Your task to perform on an android device: turn off translation in the chrome app Image 0: 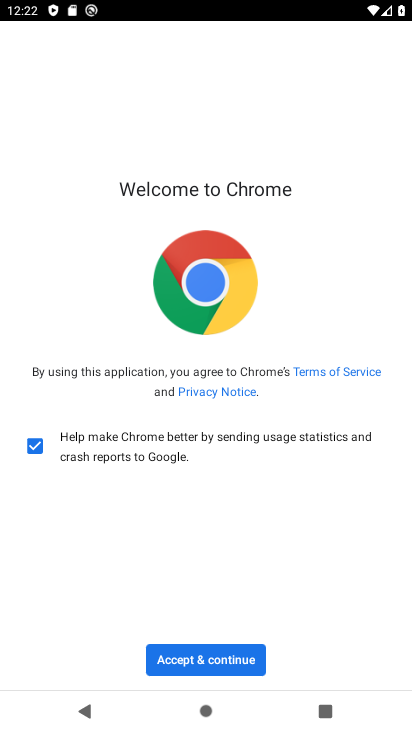
Step 0: click (222, 646)
Your task to perform on an android device: turn off translation in the chrome app Image 1: 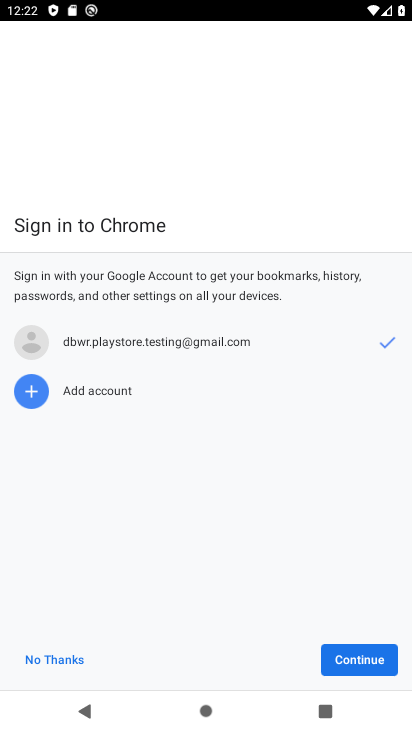
Step 1: click (316, 661)
Your task to perform on an android device: turn off translation in the chrome app Image 2: 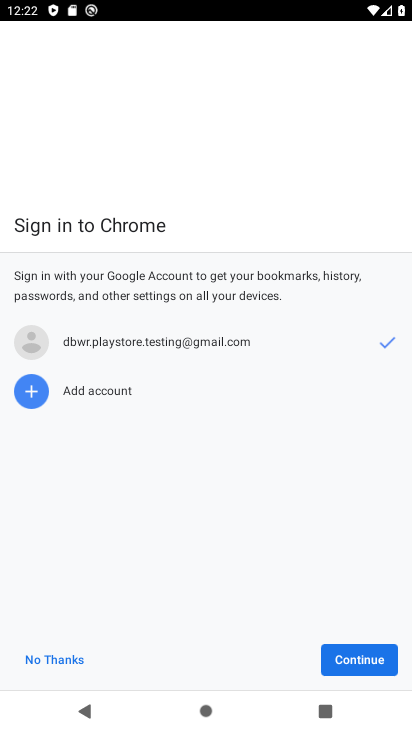
Step 2: click (336, 661)
Your task to perform on an android device: turn off translation in the chrome app Image 3: 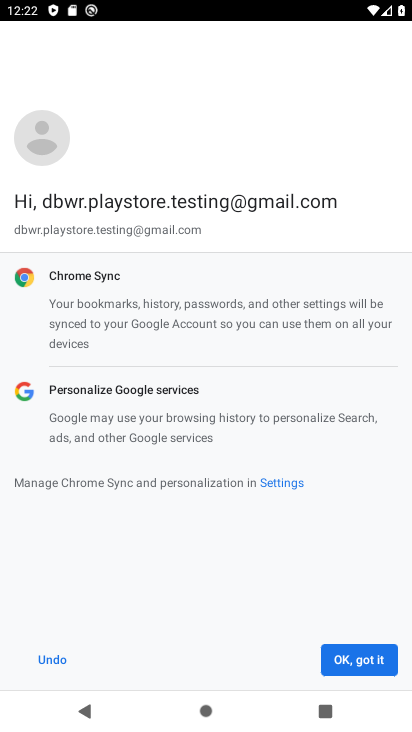
Step 3: click (352, 658)
Your task to perform on an android device: turn off translation in the chrome app Image 4: 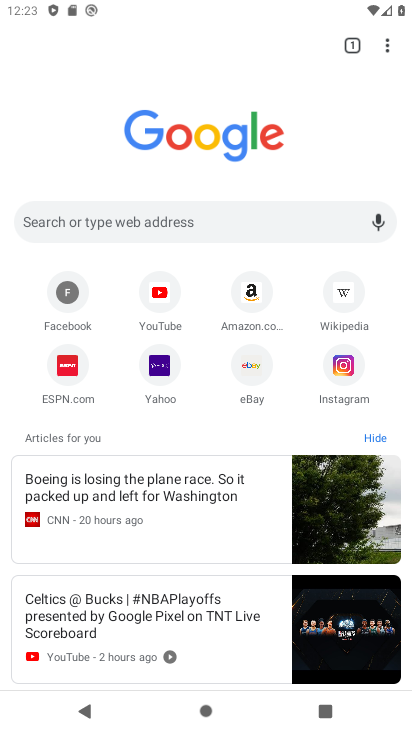
Step 4: click (387, 42)
Your task to perform on an android device: turn off translation in the chrome app Image 5: 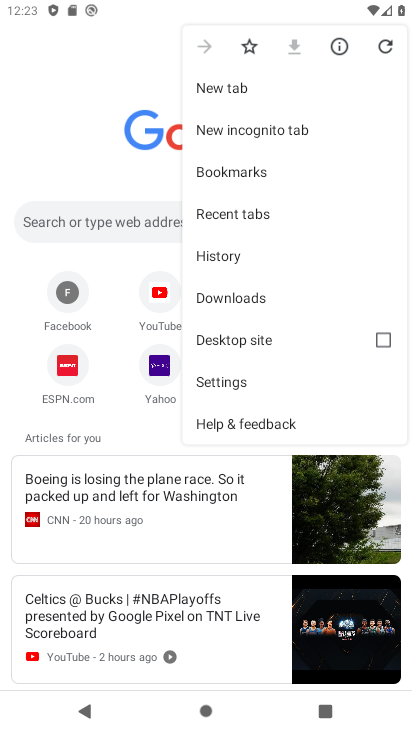
Step 5: click (232, 375)
Your task to perform on an android device: turn off translation in the chrome app Image 6: 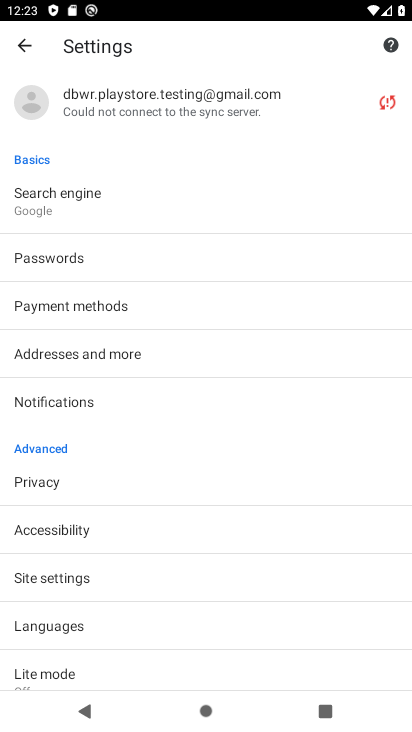
Step 6: drag from (191, 535) to (160, 162)
Your task to perform on an android device: turn off translation in the chrome app Image 7: 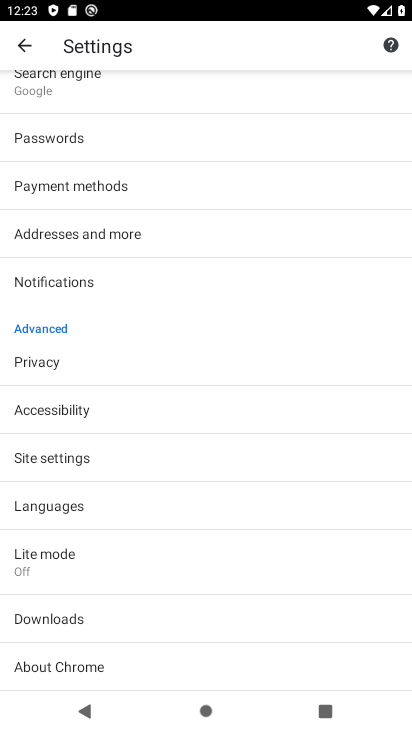
Step 7: click (73, 516)
Your task to perform on an android device: turn off translation in the chrome app Image 8: 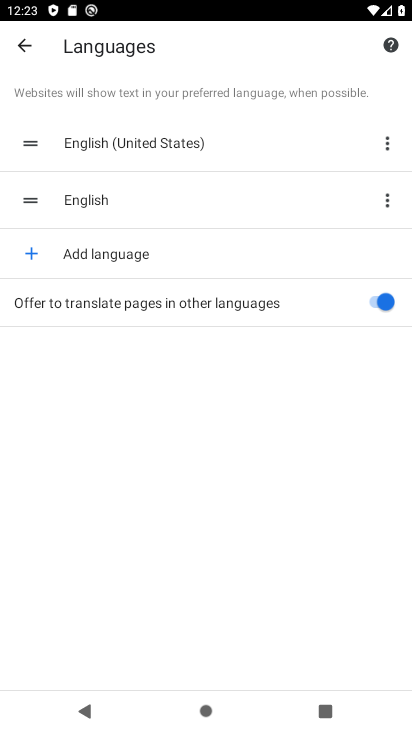
Step 8: click (372, 303)
Your task to perform on an android device: turn off translation in the chrome app Image 9: 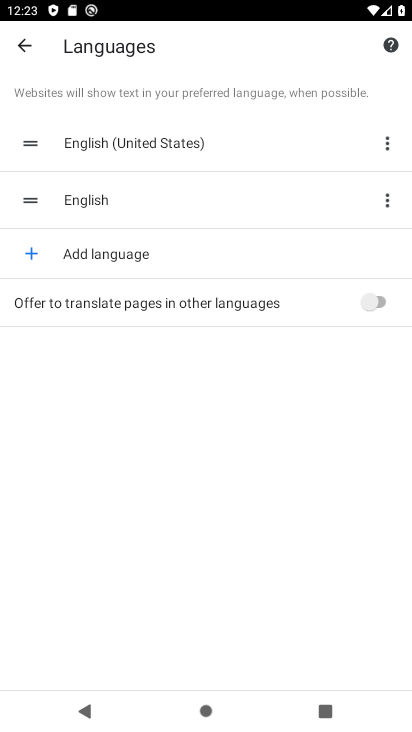
Step 9: task complete